Your task to perform on an android device: Open Google Maps and go to "Timeline" Image 0: 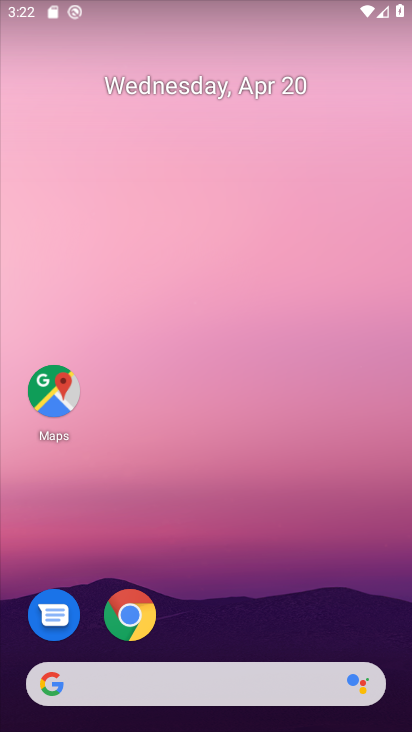
Step 0: click (64, 392)
Your task to perform on an android device: Open Google Maps and go to "Timeline" Image 1: 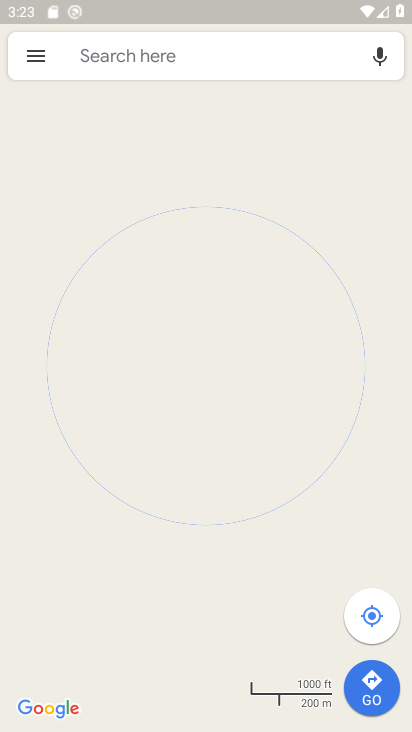
Step 1: click (34, 52)
Your task to perform on an android device: Open Google Maps and go to "Timeline" Image 2: 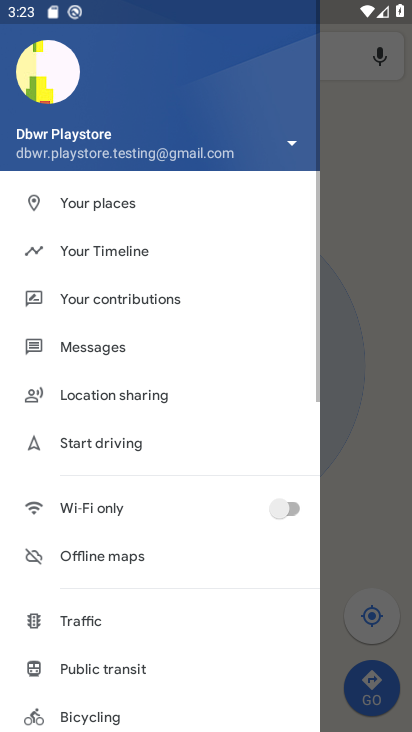
Step 2: click (128, 255)
Your task to perform on an android device: Open Google Maps and go to "Timeline" Image 3: 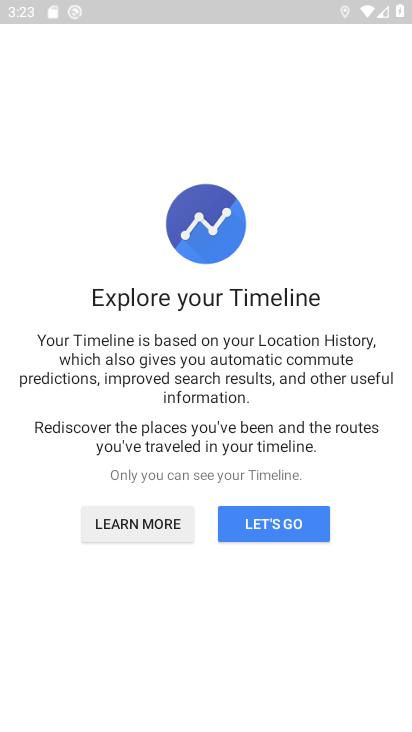
Step 3: click (273, 515)
Your task to perform on an android device: Open Google Maps and go to "Timeline" Image 4: 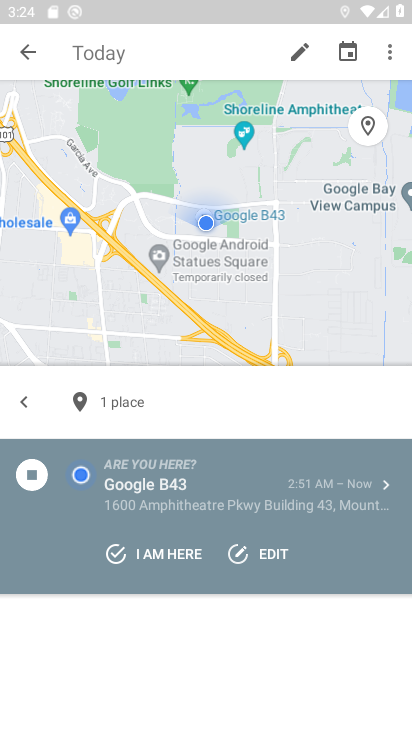
Step 4: task complete